Your task to perform on an android device: Open ESPN.com Image 0: 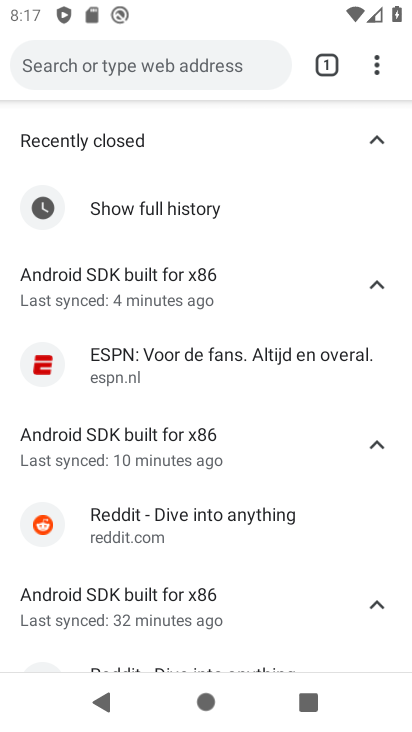
Step 0: press home button
Your task to perform on an android device: Open ESPN.com Image 1: 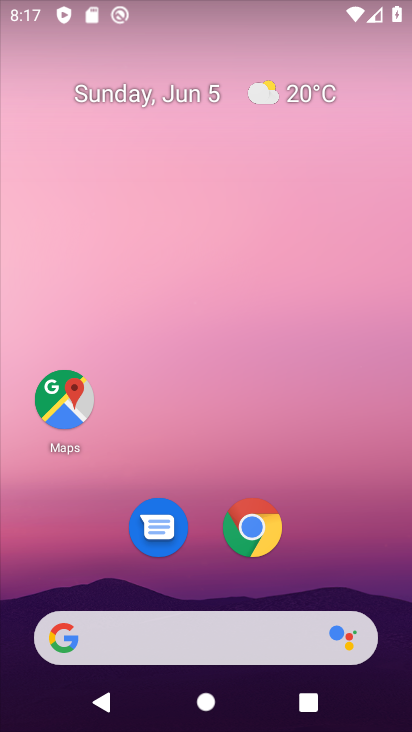
Step 1: drag from (342, 546) to (260, 2)
Your task to perform on an android device: Open ESPN.com Image 2: 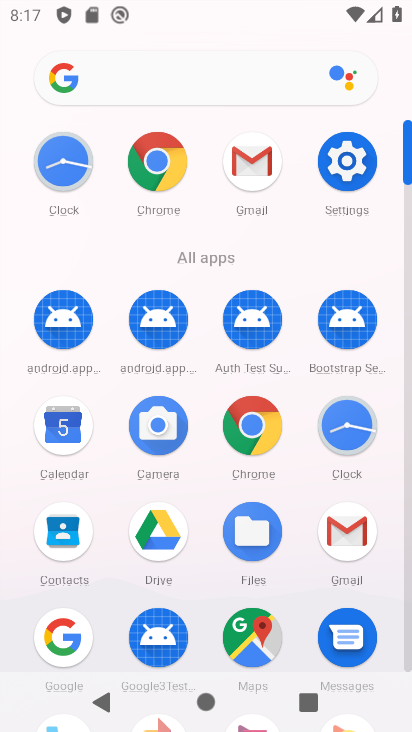
Step 2: click (175, 178)
Your task to perform on an android device: Open ESPN.com Image 3: 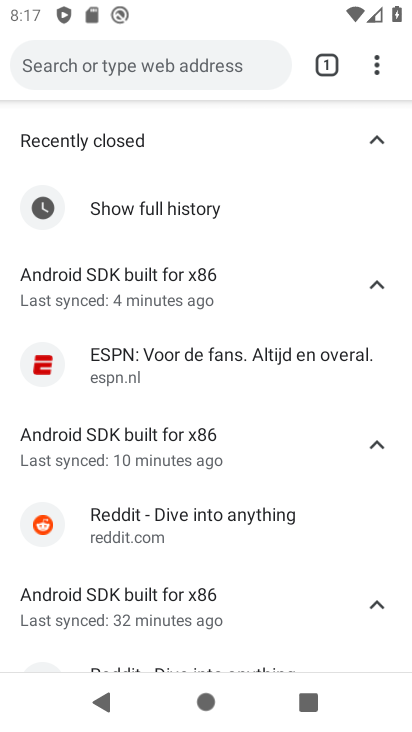
Step 3: click (161, 372)
Your task to perform on an android device: Open ESPN.com Image 4: 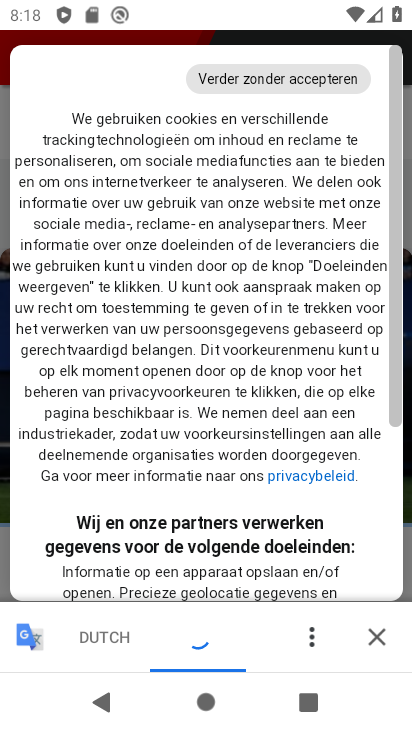
Step 4: task complete